Your task to perform on an android device: find snoozed emails in the gmail app Image 0: 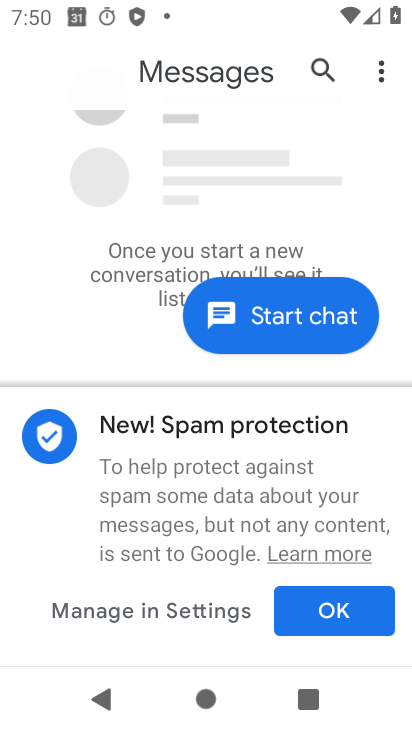
Step 0: press home button
Your task to perform on an android device: find snoozed emails in the gmail app Image 1: 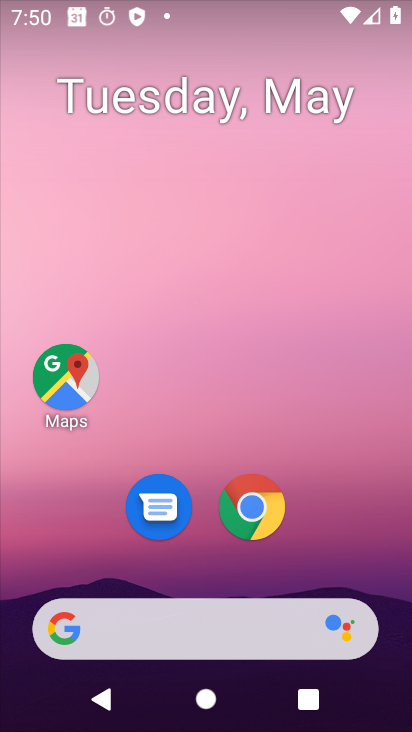
Step 1: drag from (220, 584) to (236, 30)
Your task to perform on an android device: find snoozed emails in the gmail app Image 2: 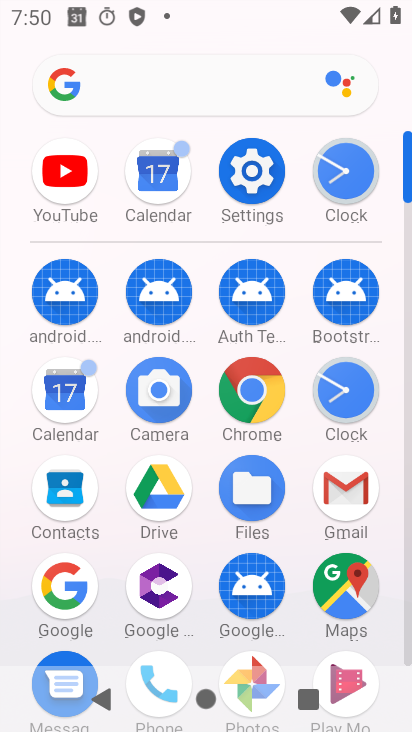
Step 2: click (349, 483)
Your task to perform on an android device: find snoozed emails in the gmail app Image 3: 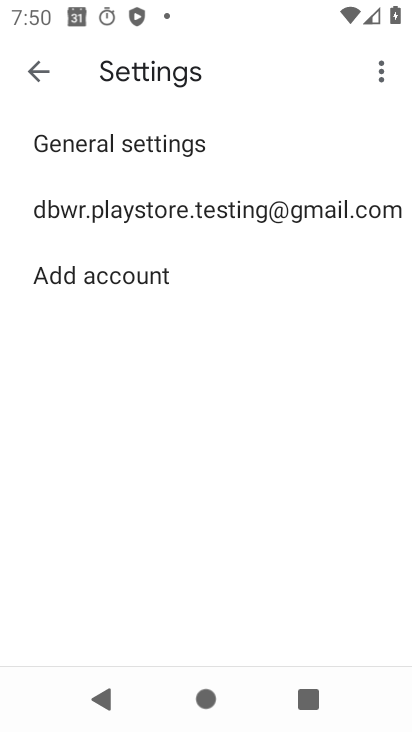
Step 3: click (49, 66)
Your task to perform on an android device: find snoozed emails in the gmail app Image 4: 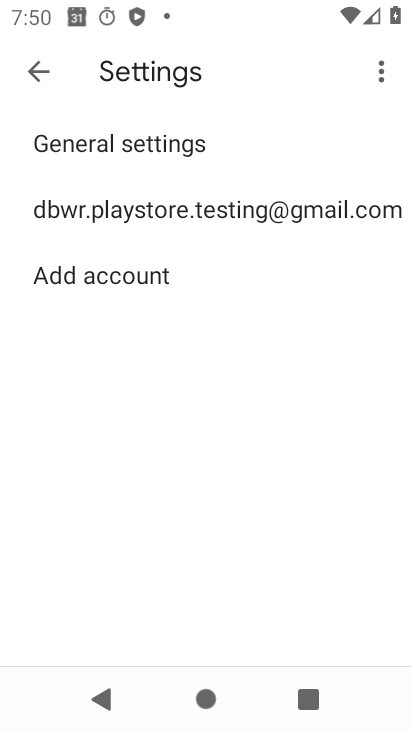
Step 4: click (34, 56)
Your task to perform on an android device: find snoozed emails in the gmail app Image 5: 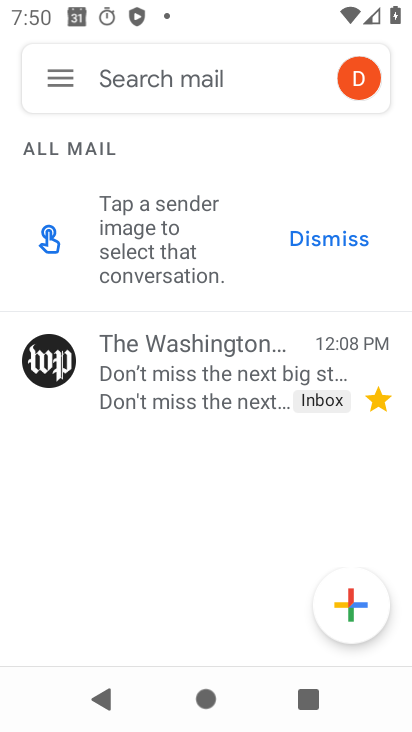
Step 5: click (48, 64)
Your task to perform on an android device: find snoozed emails in the gmail app Image 6: 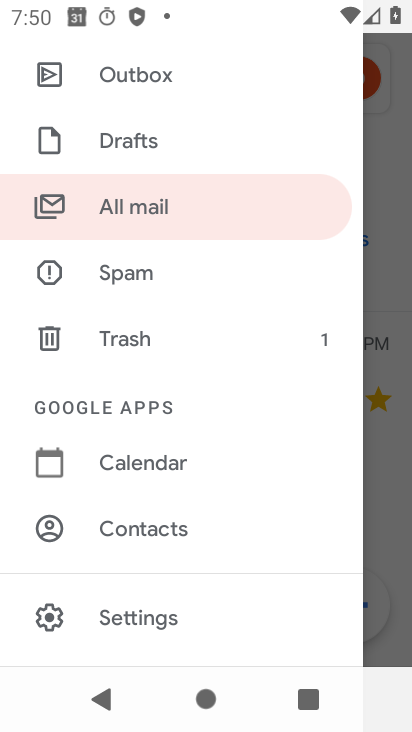
Step 6: drag from (183, 220) to (250, 423)
Your task to perform on an android device: find snoozed emails in the gmail app Image 7: 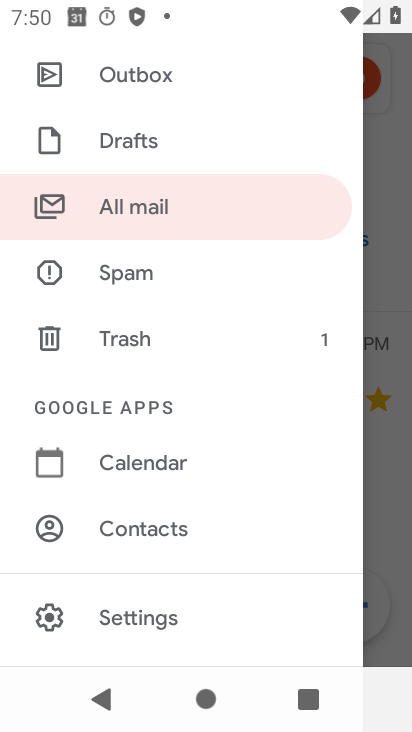
Step 7: drag from (223, 171) to (251, 465)
Your task to perform on an android device: find snoozed emails in the gmail app Image 8: 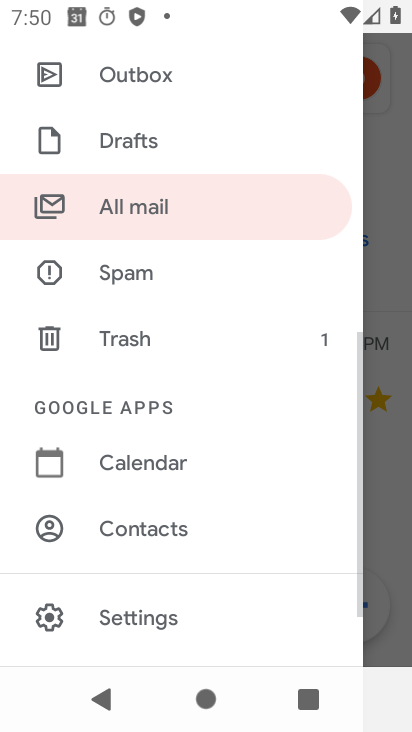
Step 8: drag from (237, 172) to (274, 504)
Your task to perform on an android device: find snoozed emails in the gmail app Image 9: 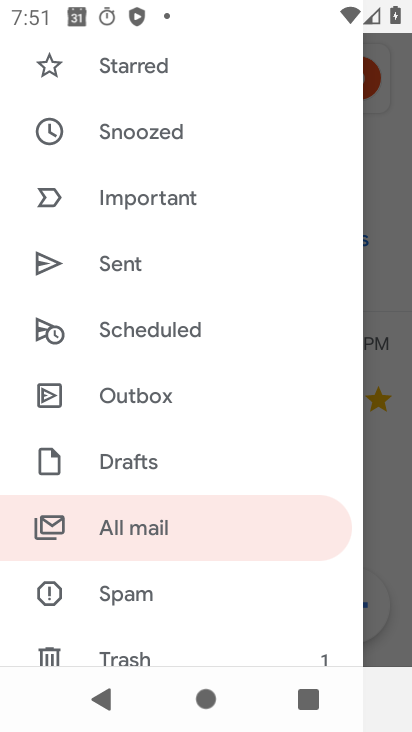
Step 9: drag from (207, 157) to (182, 340)
Your task to perform on an android device: find snoozed emails in the gmail app Image 10: 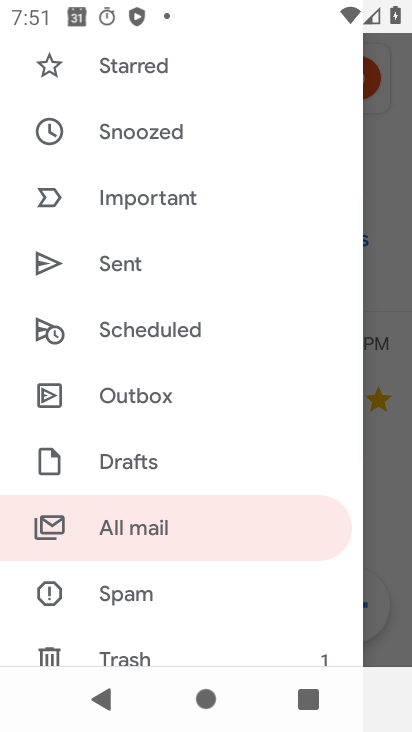
Step 10: drag from (187, 221) to (193, 391)
Your task to perform on an android device: find snoozed emails in the gmail app Image 11: 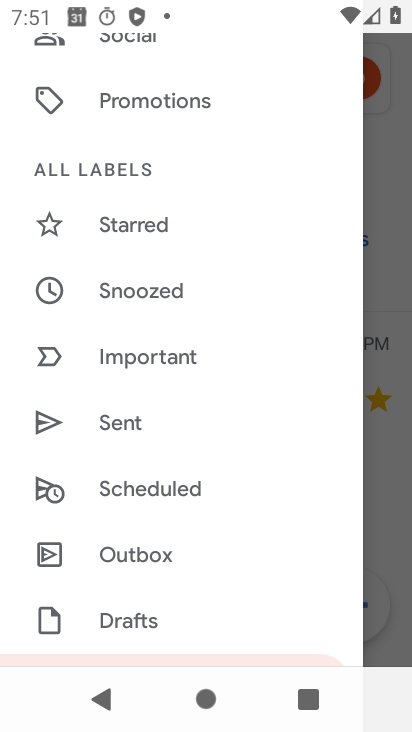
Step 11: click (207, 296)
Your task to perform on an android device: find snoozed emails in the gmail app Image 12: 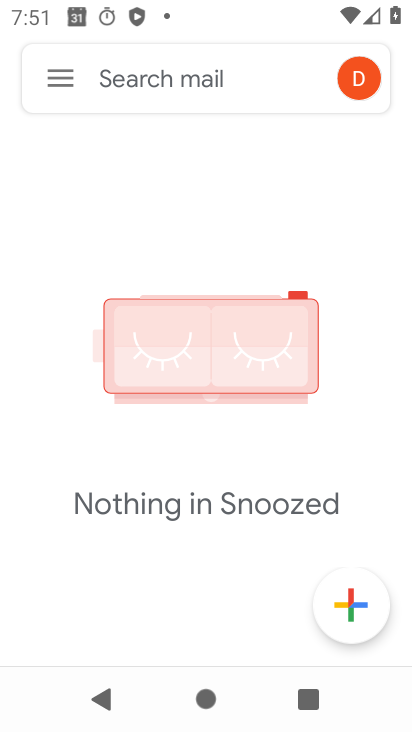
Step 12: task complete